Your task to perform on an android device: Install the Instagram app Image 0: 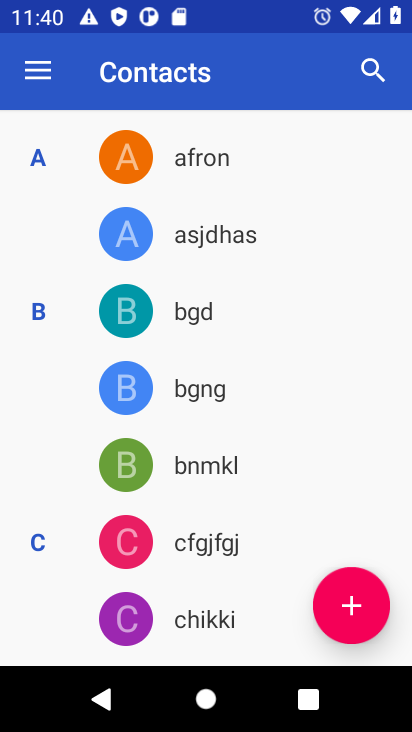
Step 0: press home button
Your task to perform on an android device: Install the Instagram app Image 1: 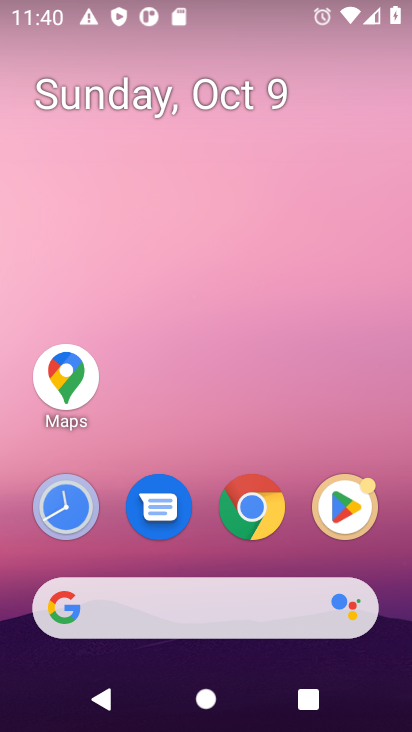
Step 1: drag from (386, 444) to (363, 120)
Your task to perform on an android device: Install the Instagram app Image 2: 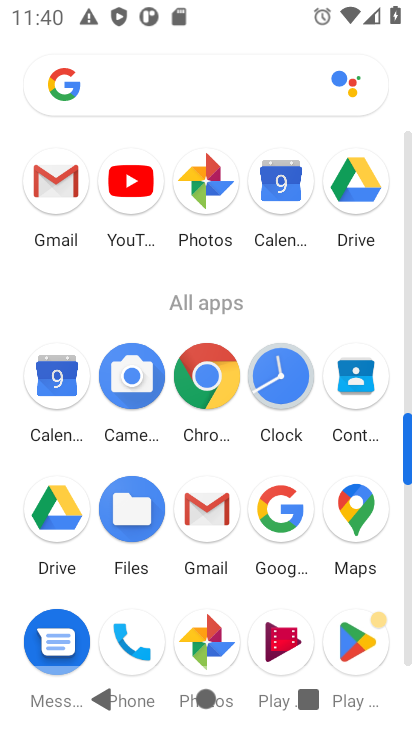
Step 2: click (352, 648)
Your task to perform on an android device: Install the Instagram app Image 3: 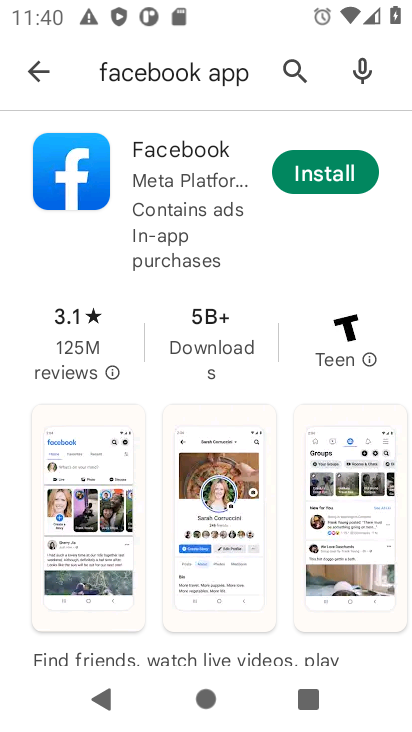
Step 3: press back button
Your task to perform on an android device: Install the Instagram app Image 4: 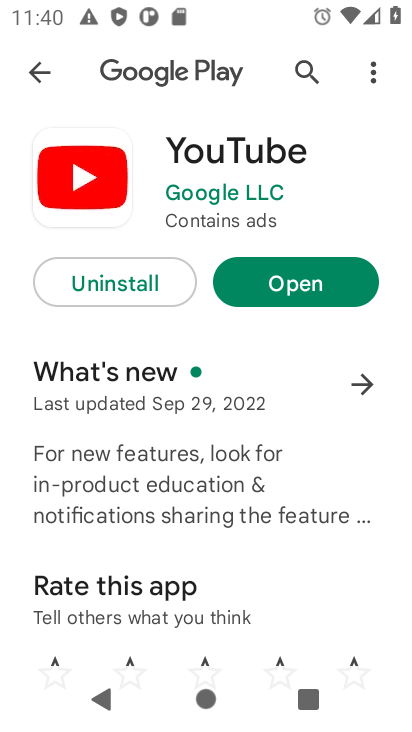
Step 4: press back button
Your task to perform on an android device: Install the Instagram app Image 5: 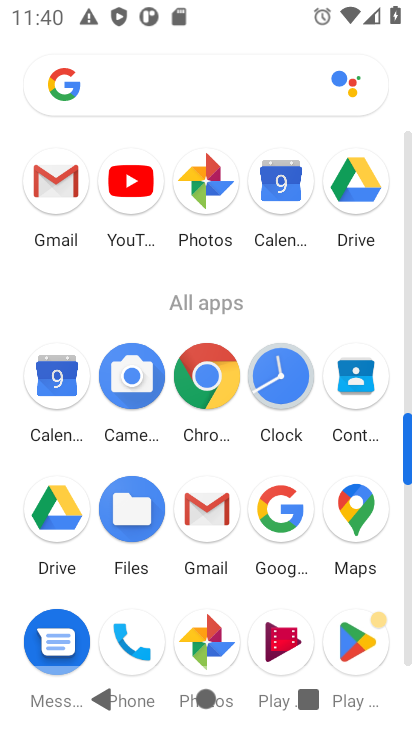
Step 5: click (365, 632)
Your task to perform on an android device: Install the Instagram app Image 6: 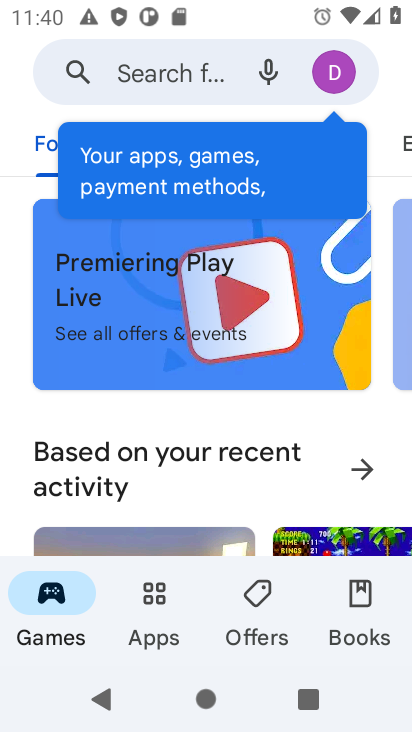
Step 6: click (165, 606)
Your task to perform on an android device: Install the Instagram app Image 7: 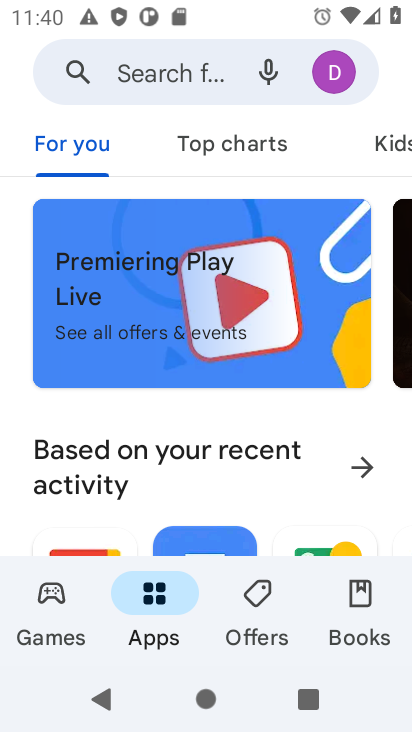
Step 7: click (223, 74)
Your task to perform on an android device: Install the Instagram app Image 8: 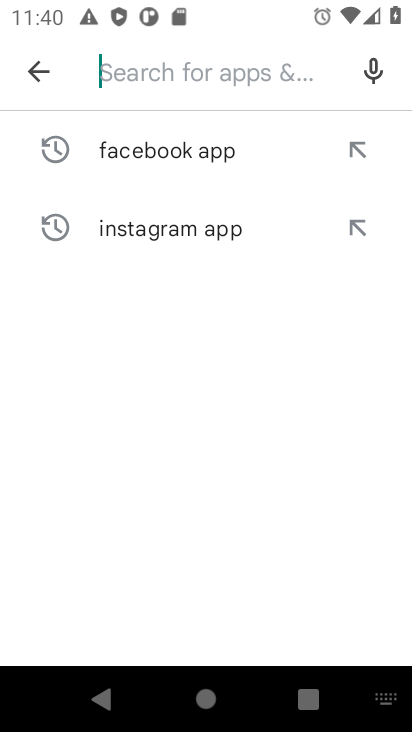
Step 8: click (198, 234)
Your task to perform on an android device: Install the Instagram app Image 9: 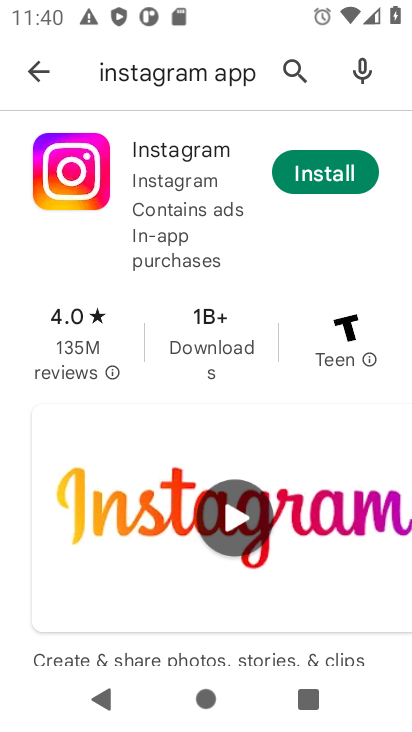
Step 9: click (322, 180)
Your task to perform on an android device: Install the Instagram app Image 10: 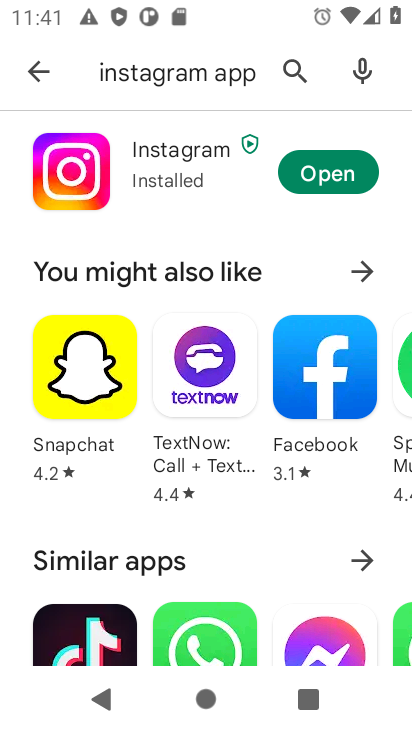
Step 10: task complete